Your task to perform on an android device: Open network settings Image 0: 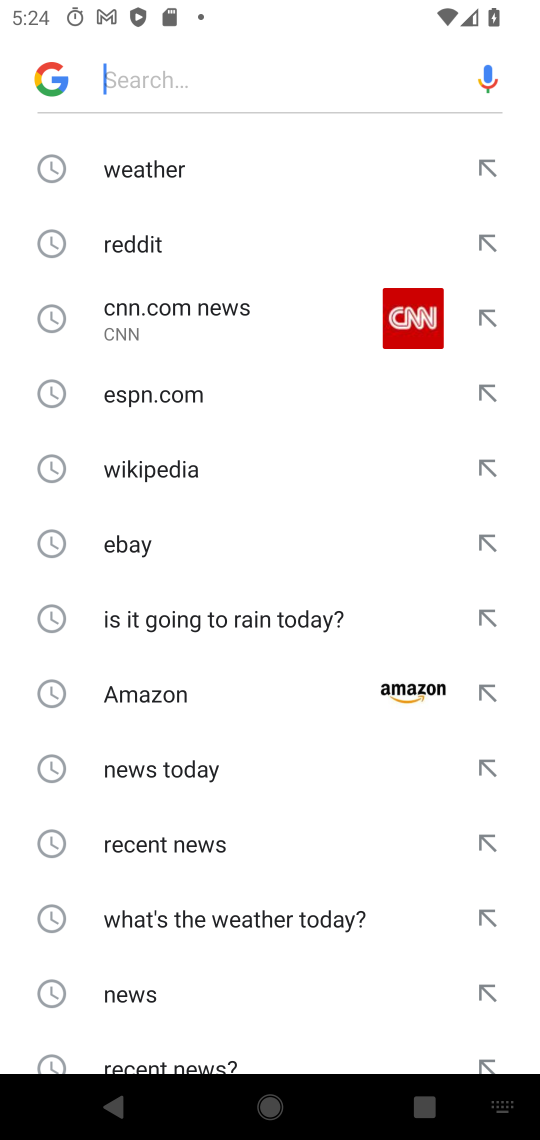
Step 0: press home button
Your task to perform on an android device: Open network settings Image 1: 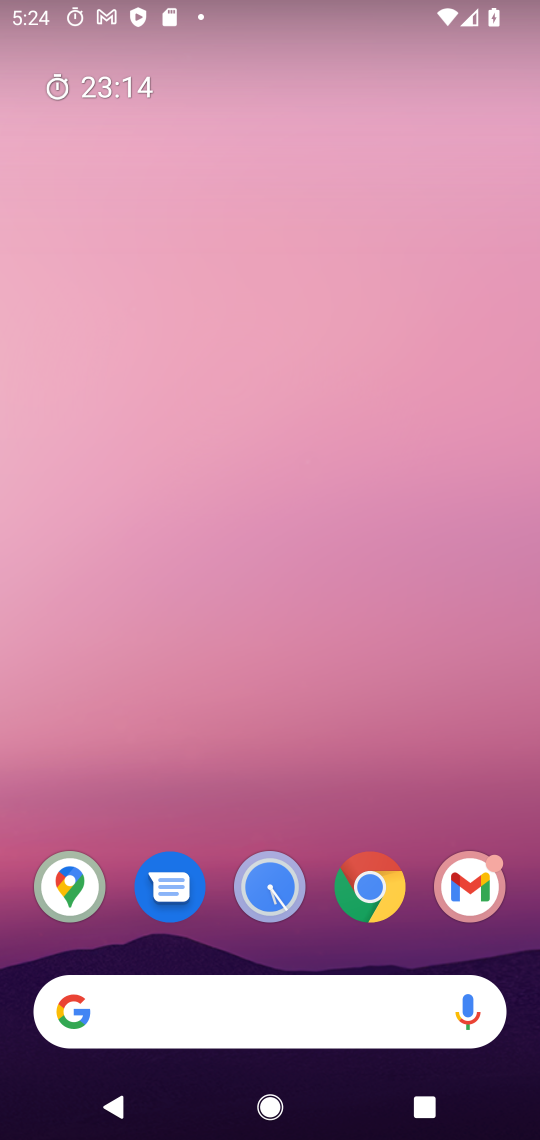
Step 1: drag from (517, 868) to (386, 21)
Your task to perform on an android device: Open network settings Image 2: 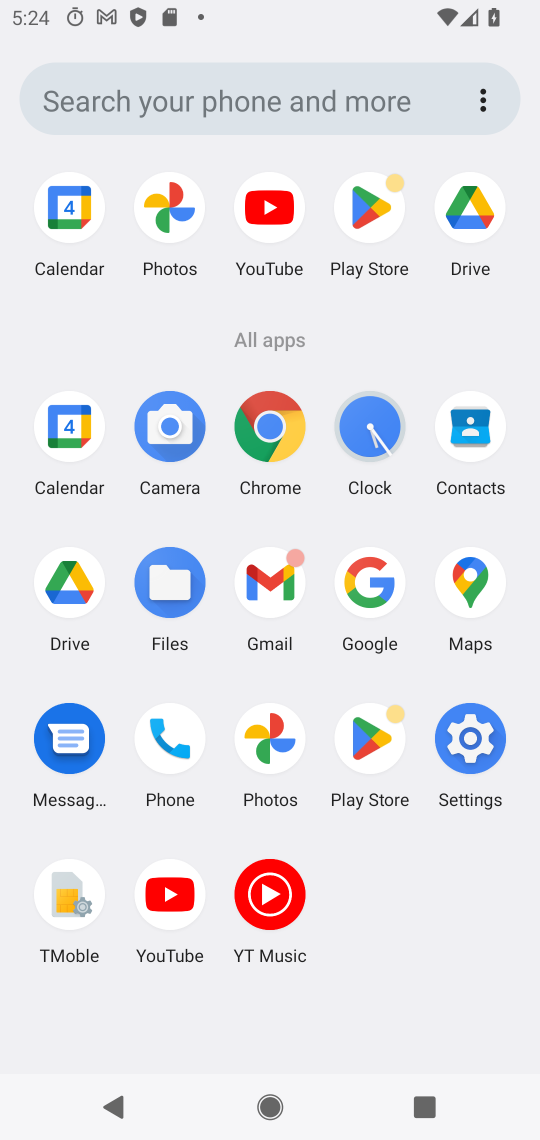
Step 2: click (461, 734)
Your task to perform on an android device: Open network settings Image 3: 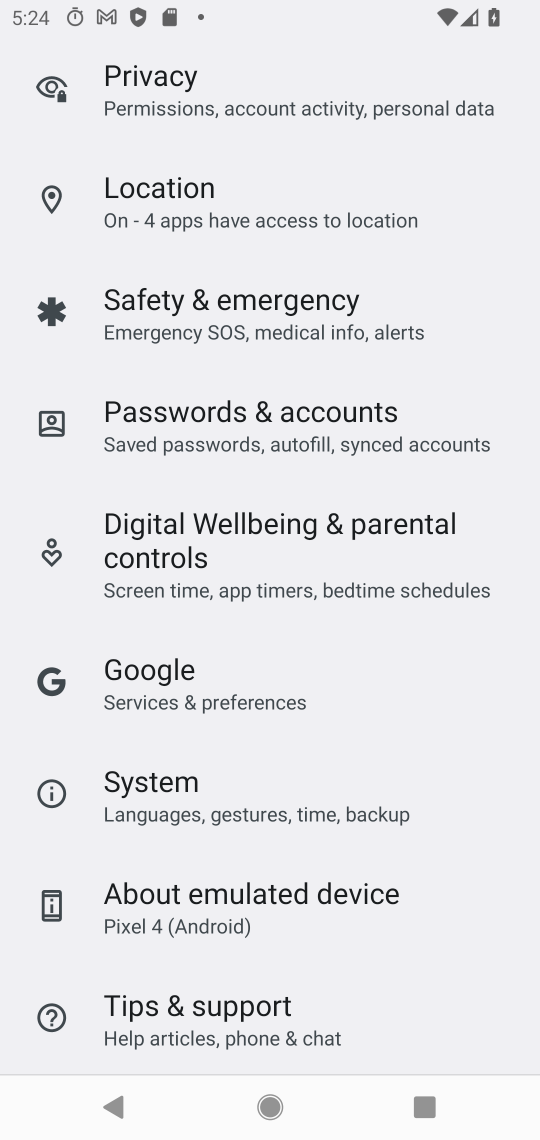
Step 3: drag from (408, 67) to (402, 815)
Your task to perform on an android device: Open network settings Image 4: 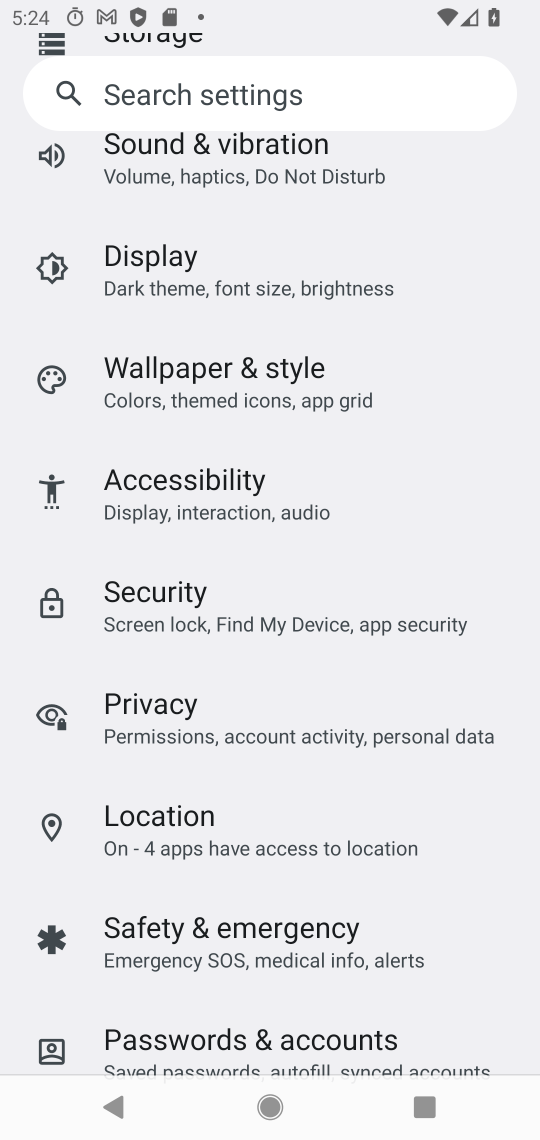
Step 4: drag from (424, 192) to (408, 920)
Your task to perform on an android device: Open network settings Image 5: 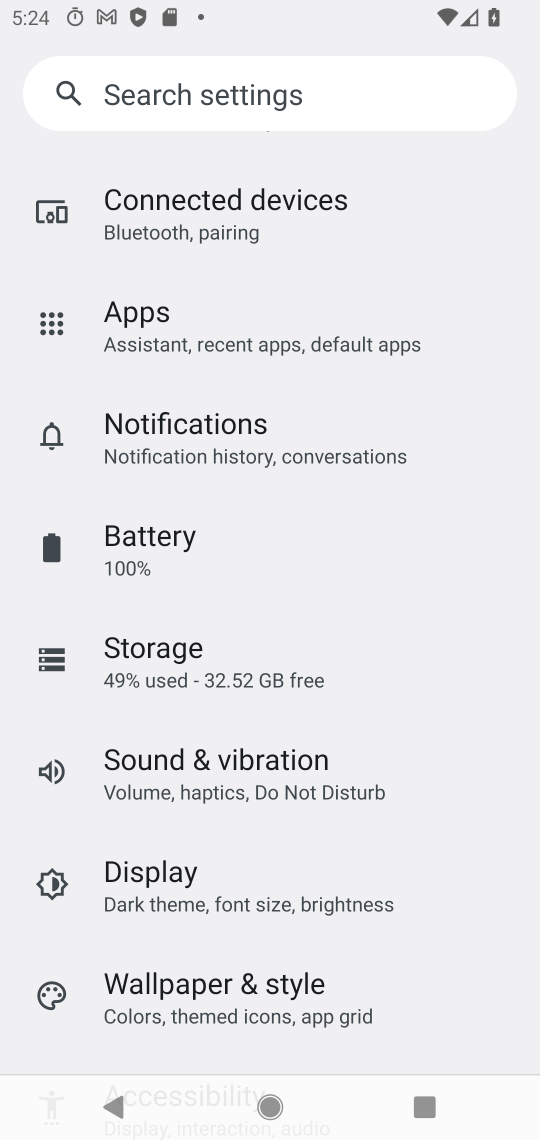
Step 5: drag from (422, 292) to (407, 862)
Your task to perform on an android device: Open network settings Image 6: 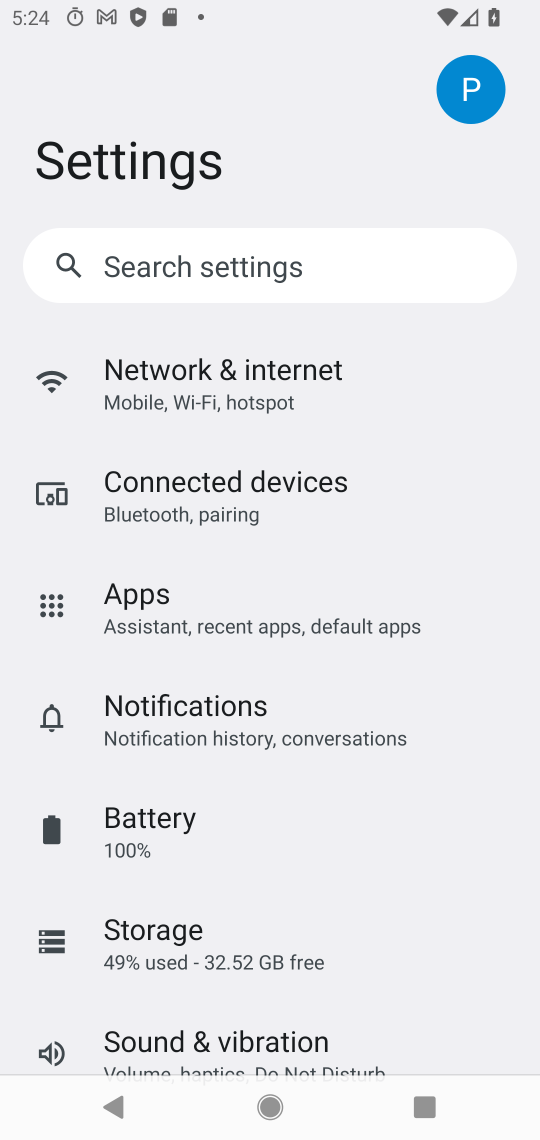
Step 6: click (209, 385)
Your task to perform on an android device: Open network settings Image 7: 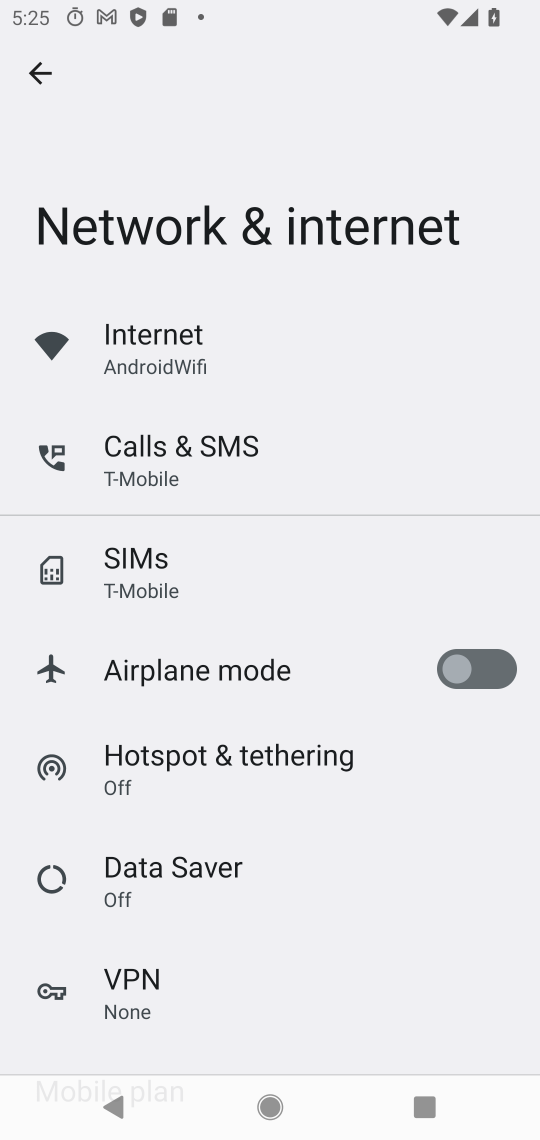
Step 7: task complete